Your task to perform on an android device: Search for pizza restaurants on Maps Image 0: 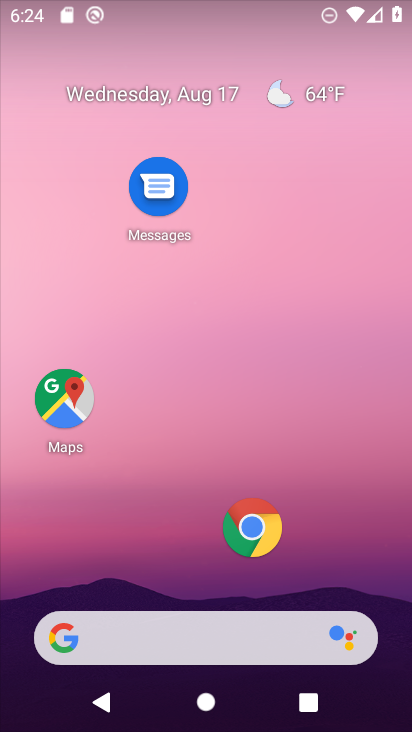
Step 0: click (72, 406)
Your task to perform on an android device: Search for pizza restaurants on Maps Image 1: 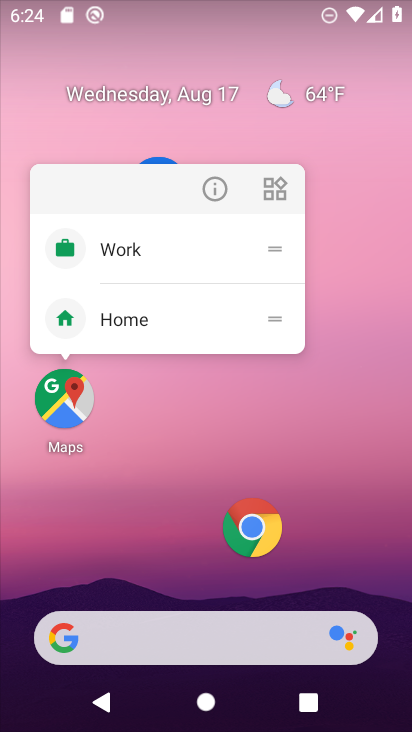
Step 1: click (72, 406)
Your task to perform on an android device: Search for pizza restaurants on Maps Image 2: 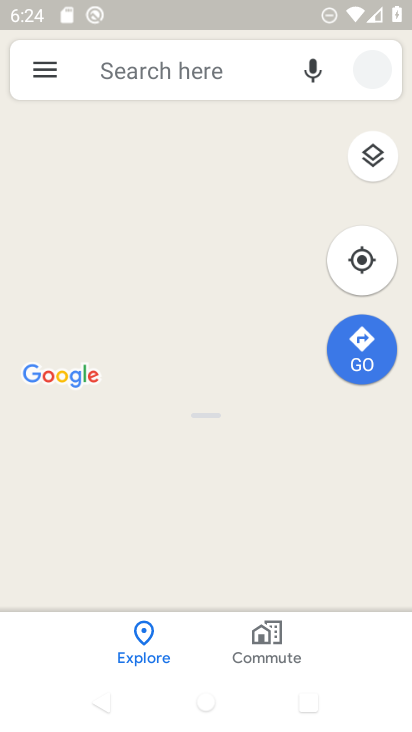
Step 2: click (195, 79)
Your task to perform on an android device: Search for pizza restaurants on Maps Image 3: 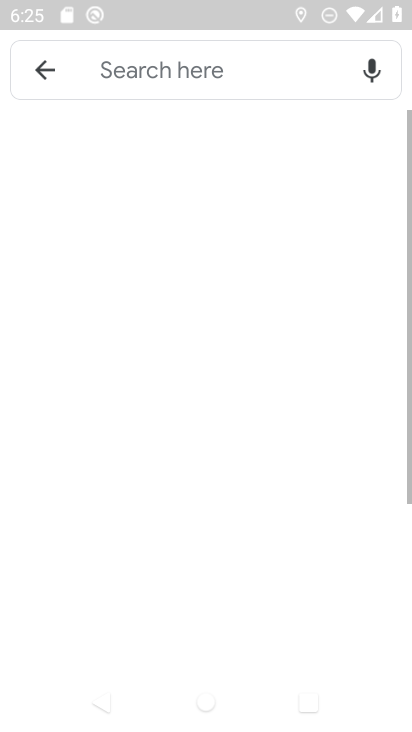
Step 3: click (135, 67)
Your task to perform on an android device: Search for pizza restaurants on Maps Image 4: 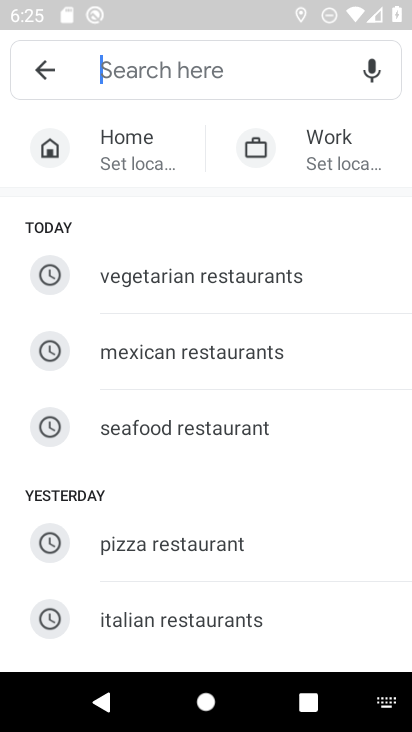
Step 4: click (137, 546)
Your task to perform on an android device: Search for pizza restaurants on Maps Image 5: 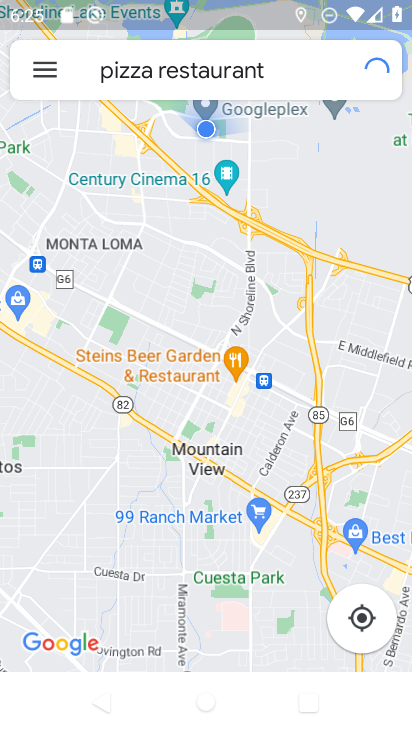
Step 5: task complete